Your task to perform on an android device: refresh tabs in the chrome app Image 0: 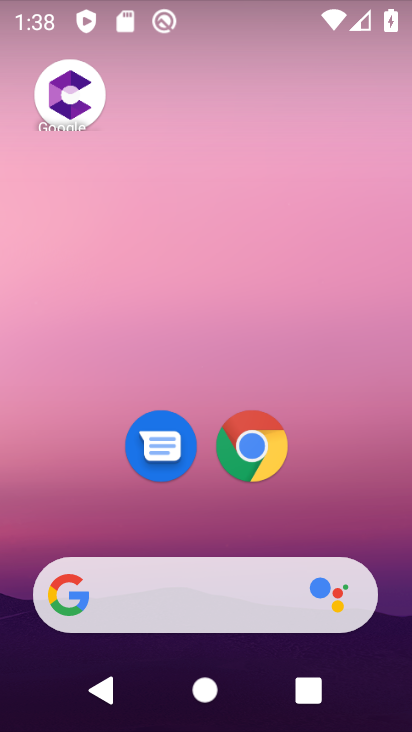
Step 0: drag from (339, 431) to (351, 27)
Your task to perform on an android device: refresh tabs in the chrome app Image 1: 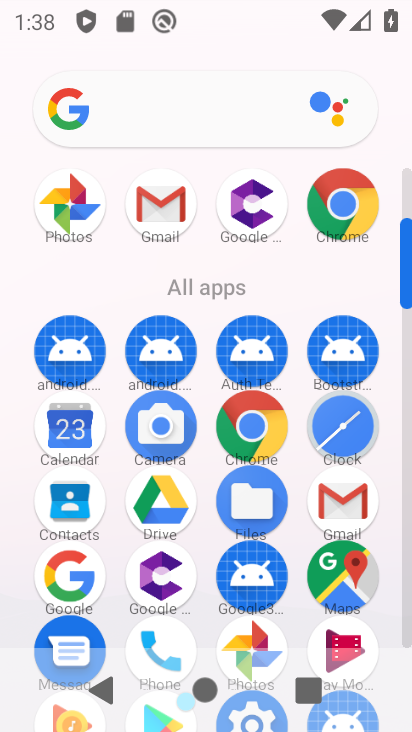
Step 1: click (226, 419)
Your task to perform on an android device: refresh tabs in the chrome app Image 2: 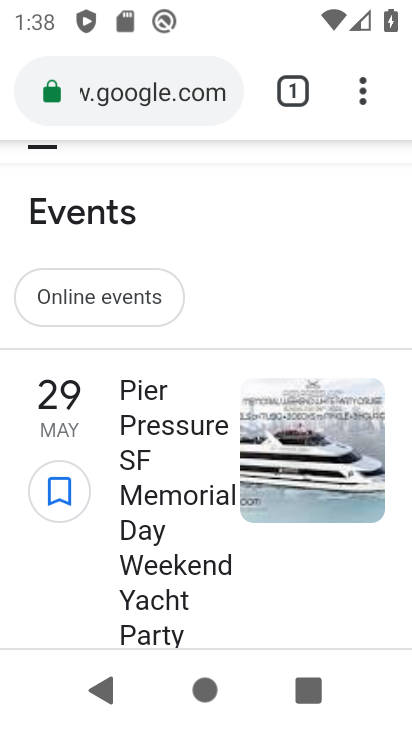
Step 2: task complete